Your task to perform on an android device: Go to Android settings Image 0: 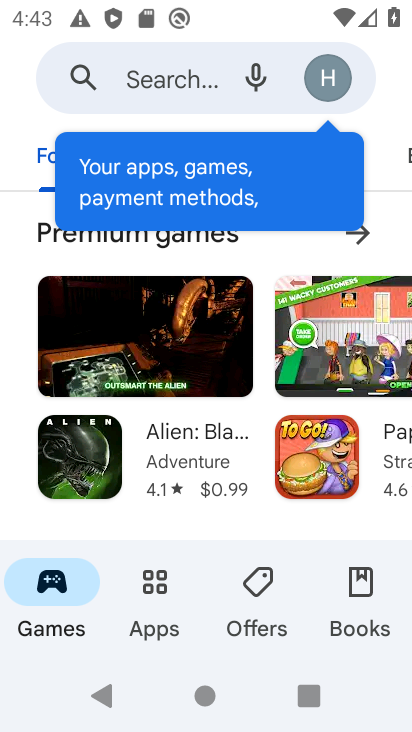
Step 0: press home button
Your task to perform on an android device: Go to Android settings Image 1: 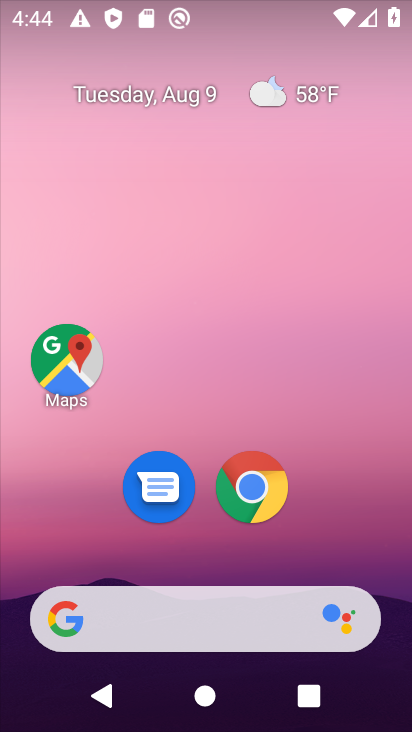
Step 1: drag from (212, 567) to (236, 32)
Your task to perform on an android device: Go to Android settings Image 2: 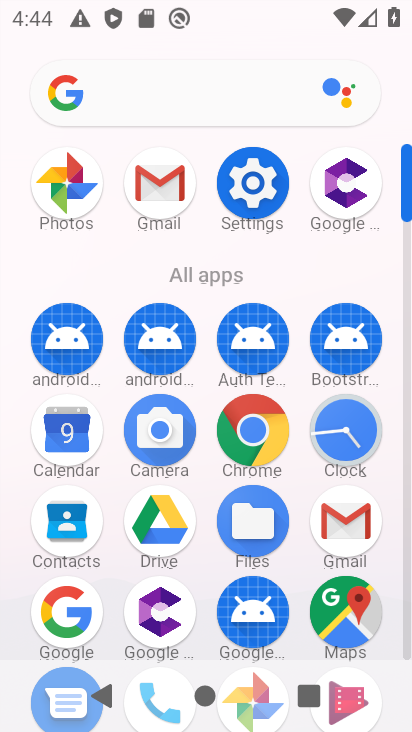
Step 2: click (249, 182)
Your task to perform on an android device: Go to Android settings Image 3: 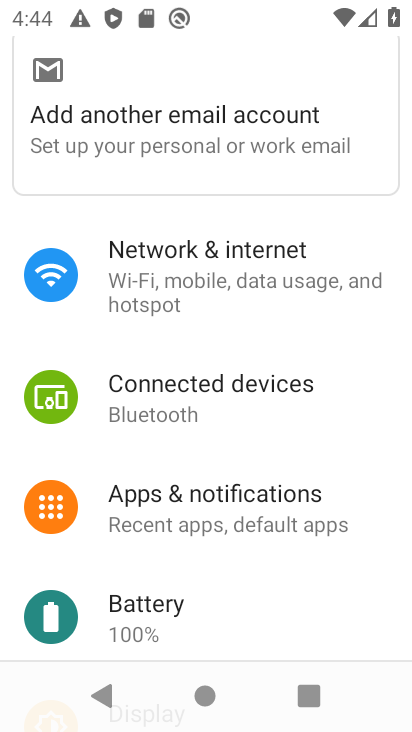
Step 3: drag from (294, 604) to (280, 16)
Your task to perform on an android device: Go to Android settings Image 4: 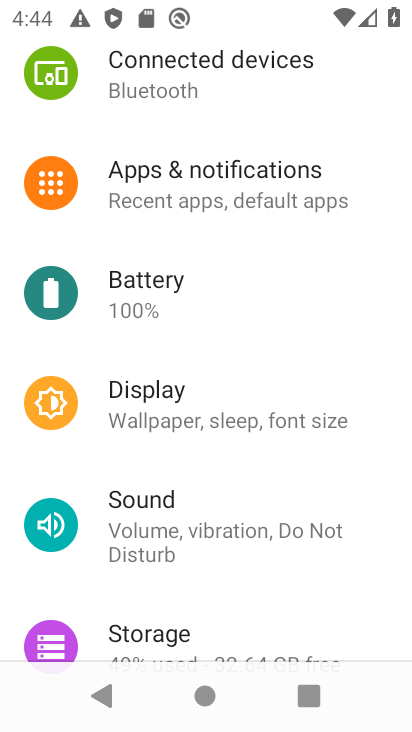
Step 4: drag from (307, 384) to (211, 58)
Your task to perform on an android device: Go to Android settings Image 5: 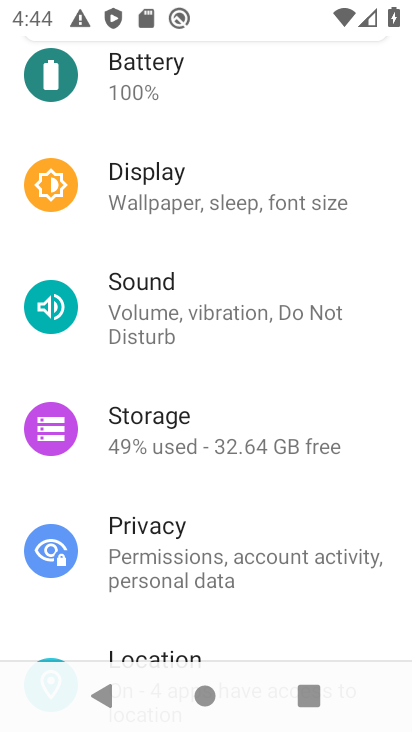
Step 5: drag from (351, 500) to (296, 214)
Your task to perform on an android device: Go to Android settings Image 6: 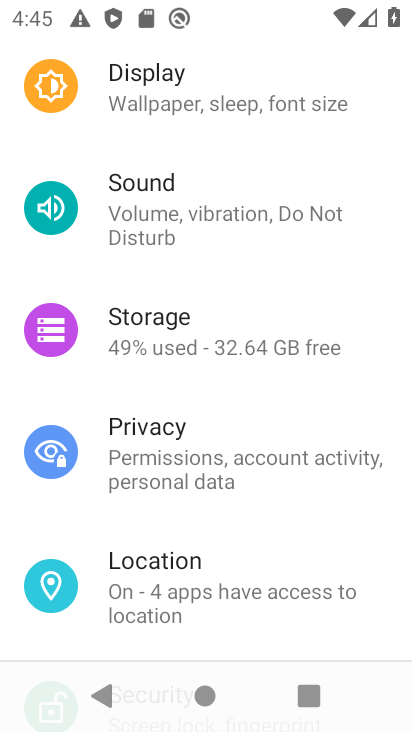
Step 6: drag from (282, 546) to (302, 38)
Your task to perform on an android device: Go to Android settings Image 7: 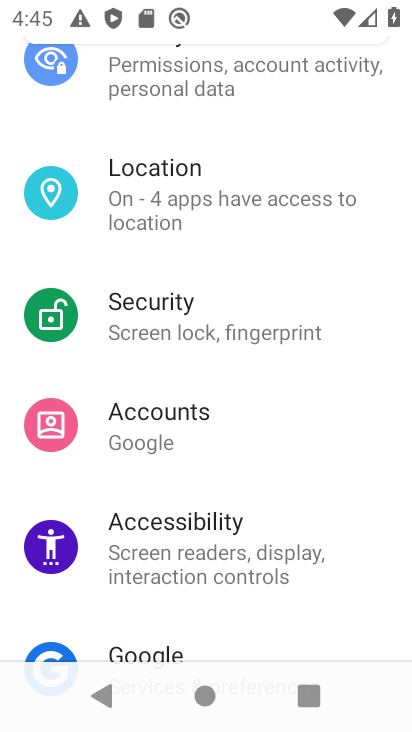
Step 7: drag from (378, 604) to (333, 86)
Your task to perform on an android device: Go to Android settings Image 8: 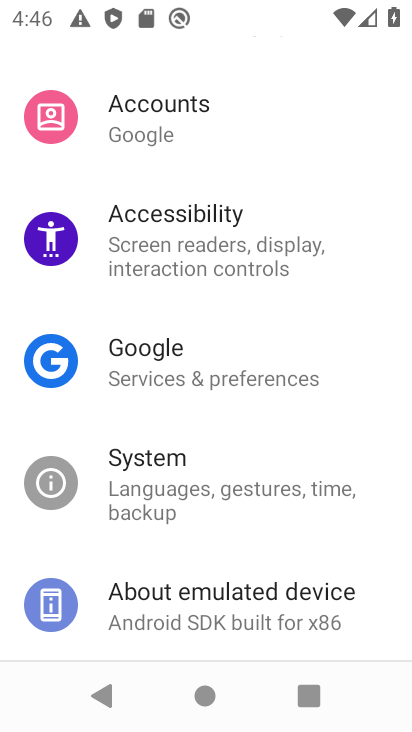
Step 8: drag from (268, 539) to (273, 194)
Your task to perform on an android device: Go to Android settings Image 9: 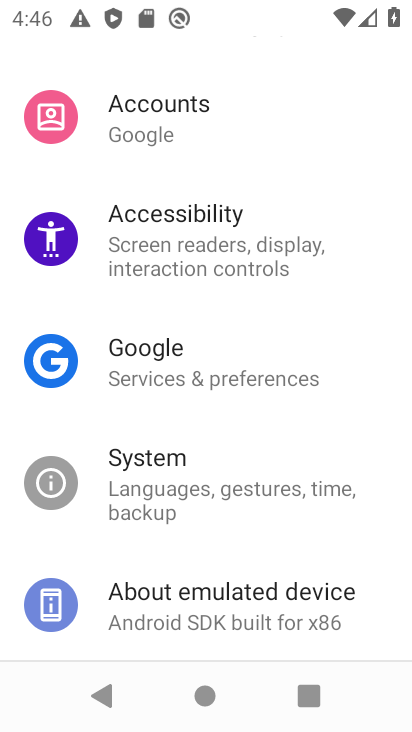
Step 9: click (171, 504)
Your task to perform on an android device: Go to Android settings Image 10: 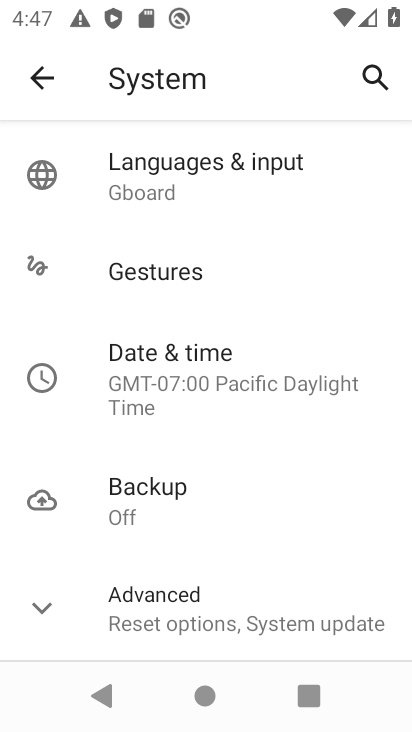
Step 10: task complete